Your task to perform on an android device: open chrome and create a bookmark for the current page Image 0: 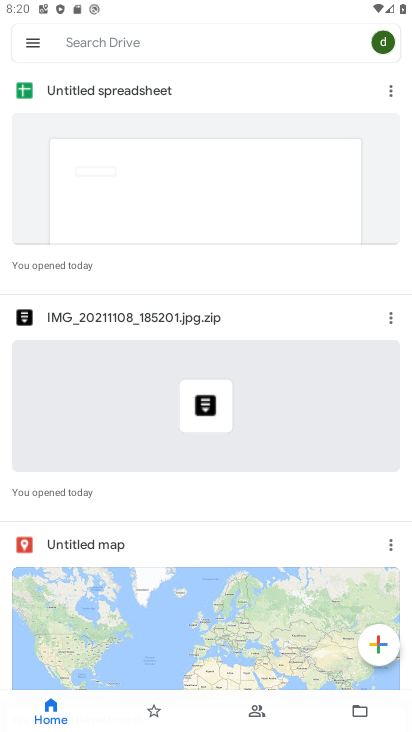
Step 0: press home button
Your task to perform on an android device: open chrome and create a bookmark for the current page Image 1: 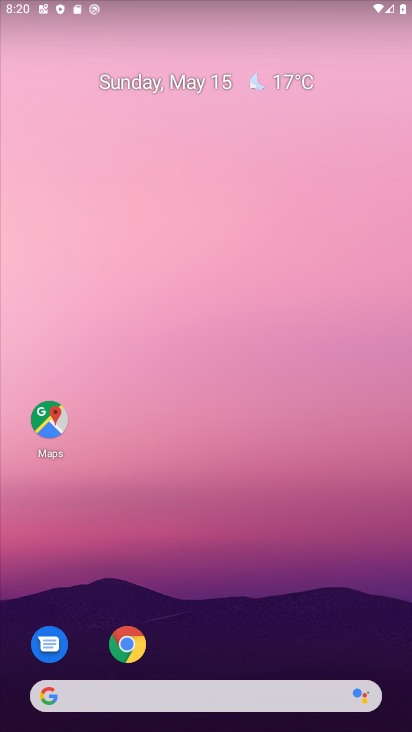
Step 1: drag from (186, 703) to (228, 250)
Your task to perform on an android device: open chrome and create a bookmark for the current page Image 2: 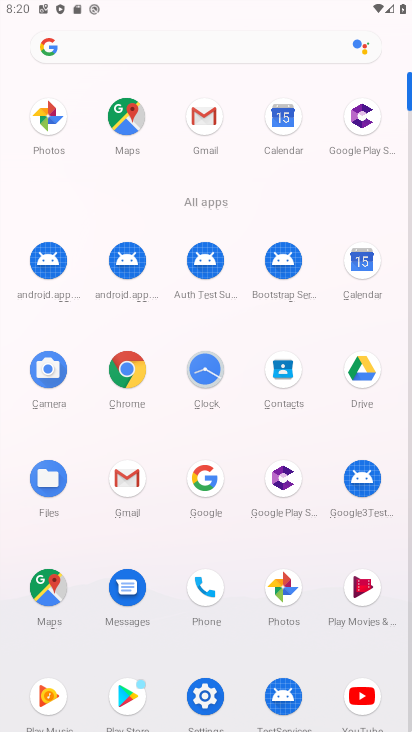
Step 2: click (128, 368)
Your task to perform on an android device: open chrome and create a bookmark for the current page Image 3: 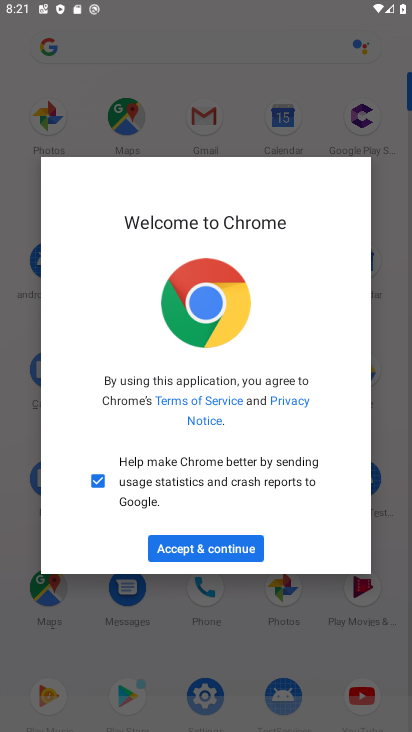
Step 3: click (203, 543)
Your task to perform on an android device: open chrome and create a bookmark for the current page Image 4: 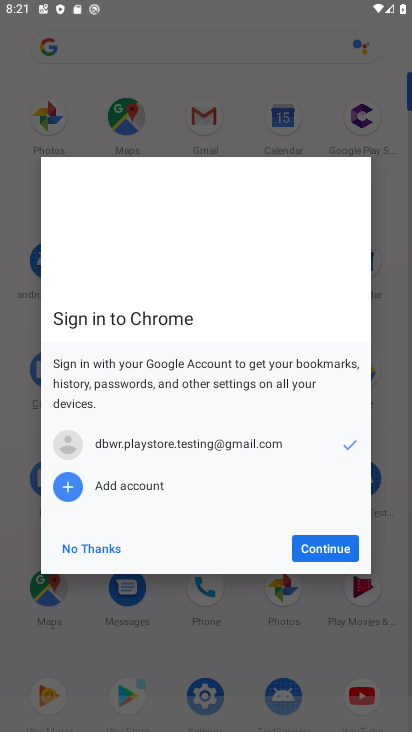
Step 4: click (326, 542)
Your task to perform on an android device: open chrome and create a bookmark for the current page Image 5: 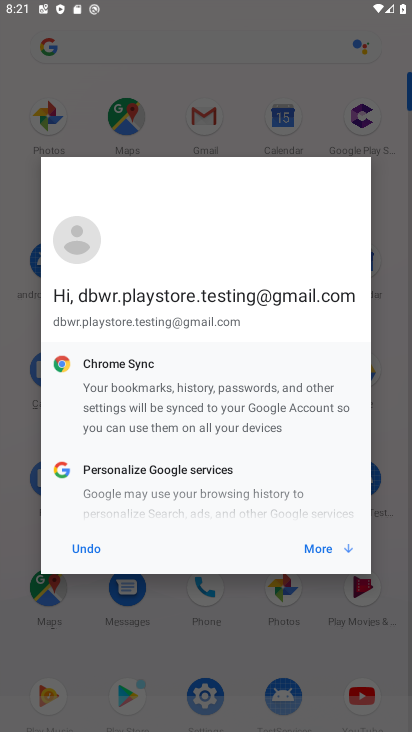
Step 5: click (309, 534)
Your task to perform on an android device: open chrome and create a bookmark for the current page Image 6: 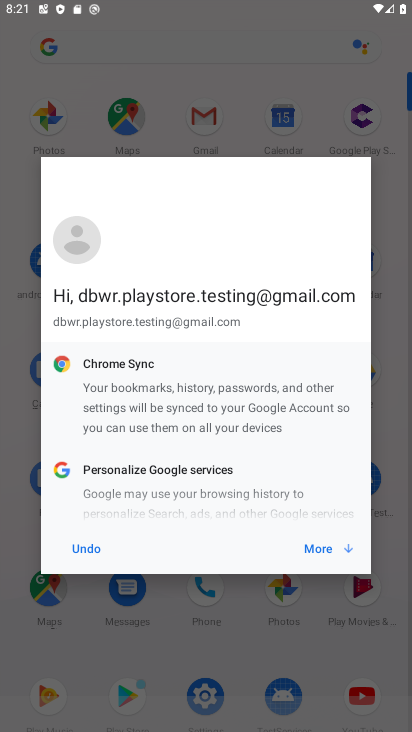
Step 6: click (354, 539)
Your task to perform on an android device: open chrome and create a bookmark for the current page Image 7: 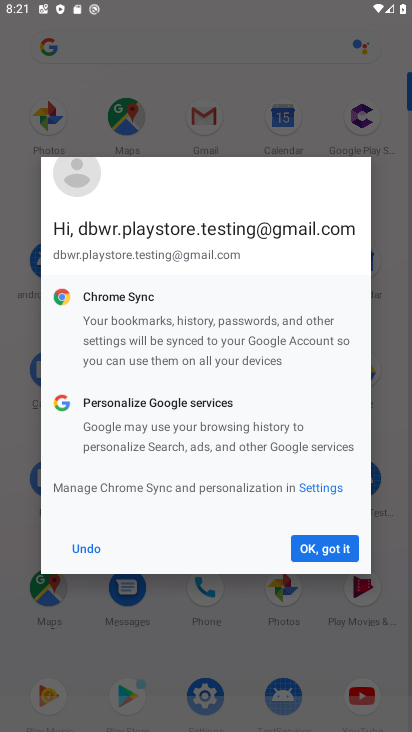
Step 7: click (329, 548)
Your task to perform on an android device: open chrome and create a bookmark for the current page Image 8: 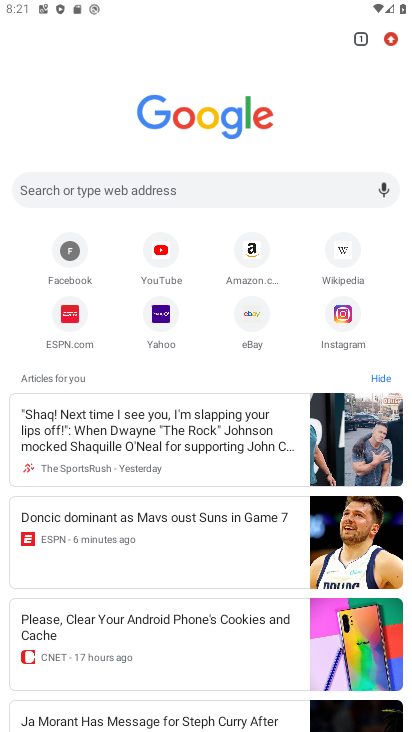
Step 8: click (380, 38)
Your task to perform on an android device: open chrome and create a bookmark for the current page Image 9: 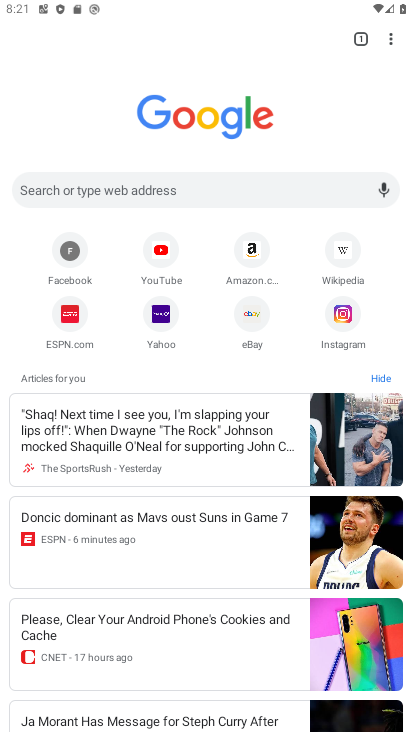
Step 9: click (385, 47)
Your task to perform on an android device: open chrome and create a bookmark for the current page Image 10: 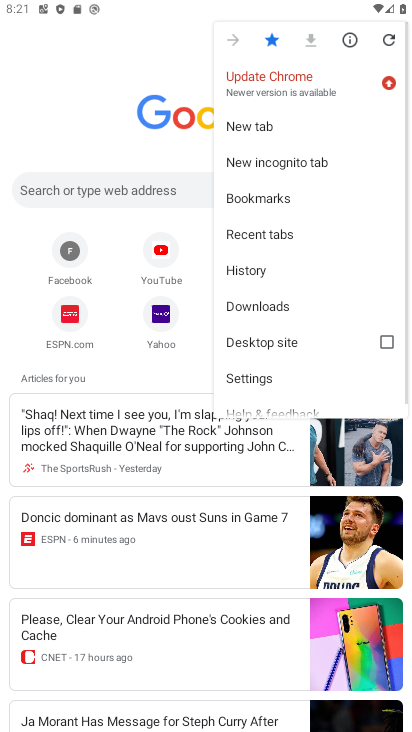
Step 10: click (278, 200)
Your task to perform on an android device: open chrome and create a bookmark for the current page Image 11: 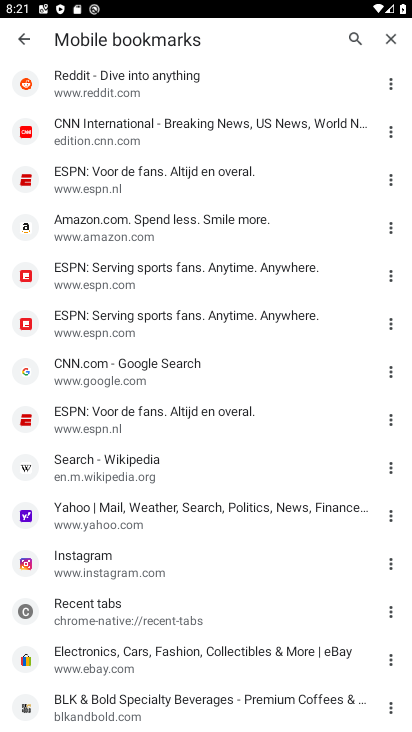
Step 11: task complete